Your task to perform on an android device: Play the last video I watched on Youtube Image 0: 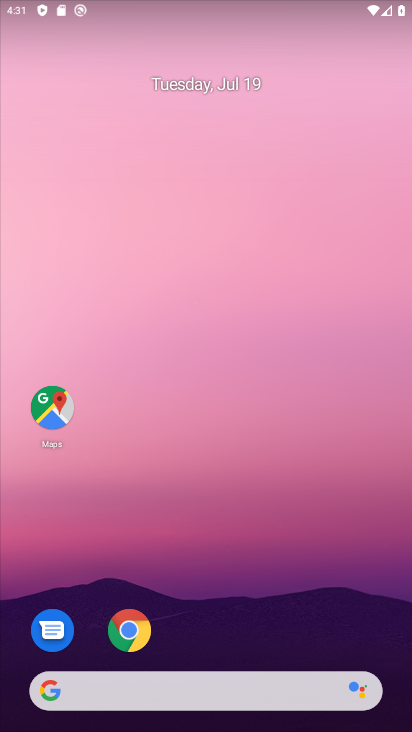
Step 0: drag from (287, 693) to (202, 309)
Your task to perform on an android device: Play the last video I watched on Youtube Image 1: 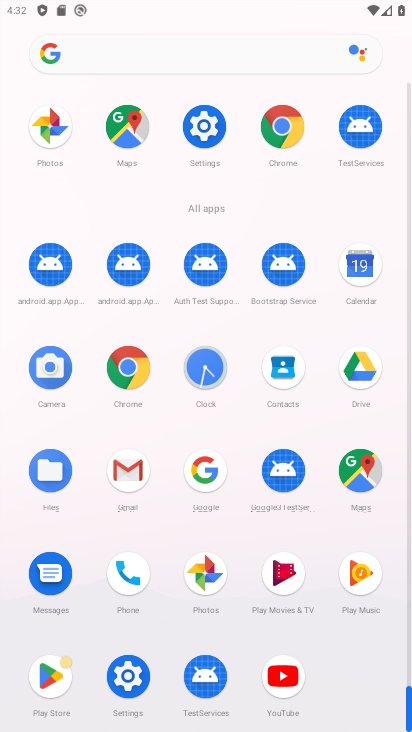
Step 1: click (278, 688)
Your task to perform on an android device: Play the last video I watched on Youtube Image 2: 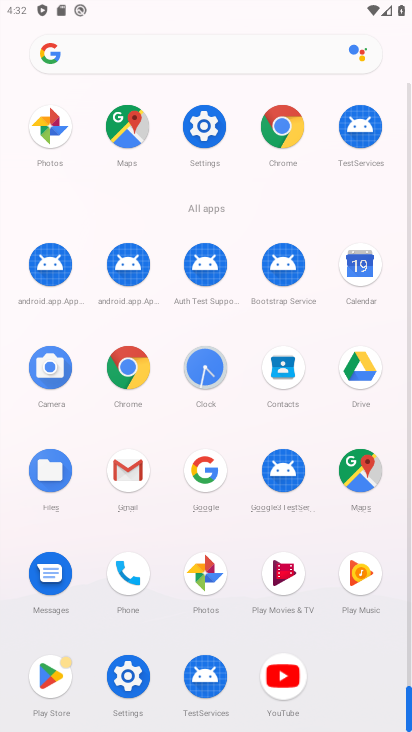
Step 2: click (281, 688)
Your task to perform on an android device: Play the last video I watched on Youtube Image 3: 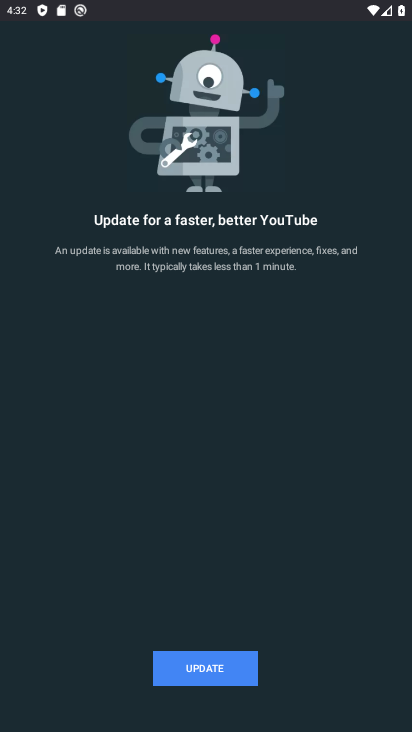
Step 3: click (220, 670)
Your task to perform on an android device: Play the last video I watched on Youtube Image 4: 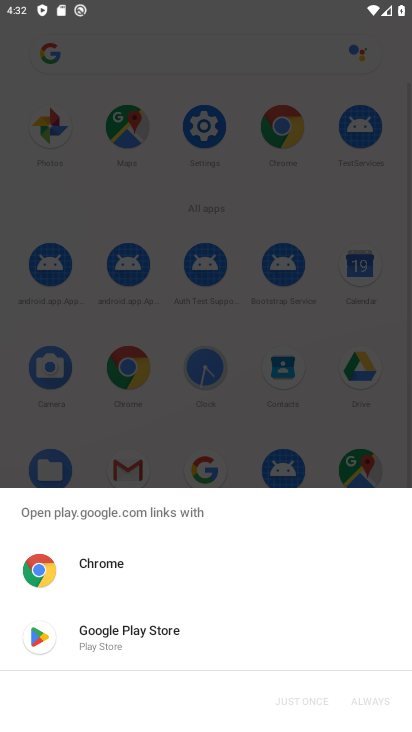
Step 4: click (76, 555)
Your task to perform on an android device: Play the last video I watched on Youtube Image 5: 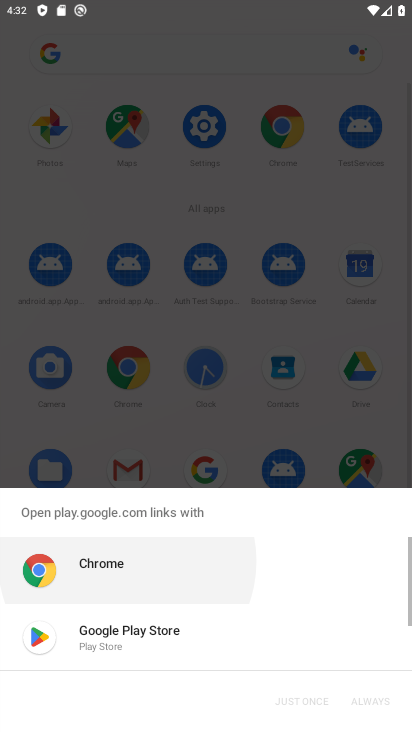
Step 5: click (76, 555)
Your task to perform on an android device: Play the last video I watched on Youtube Image 6: 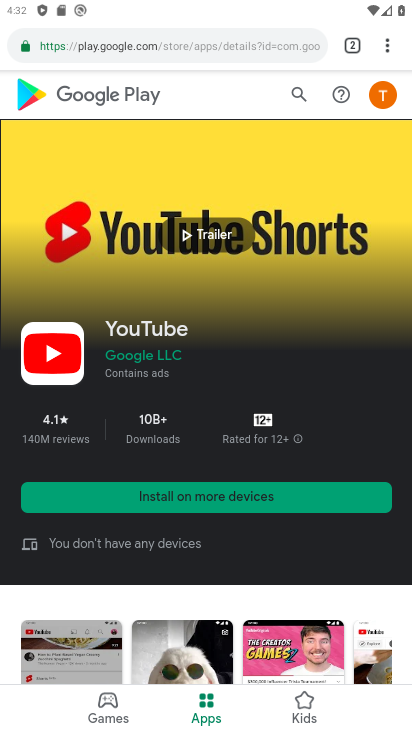
Step 6: drag from (199, 539) to (172, 286)
Your task to perform on an android device: Play the last video I watched on Youtube Image 7: 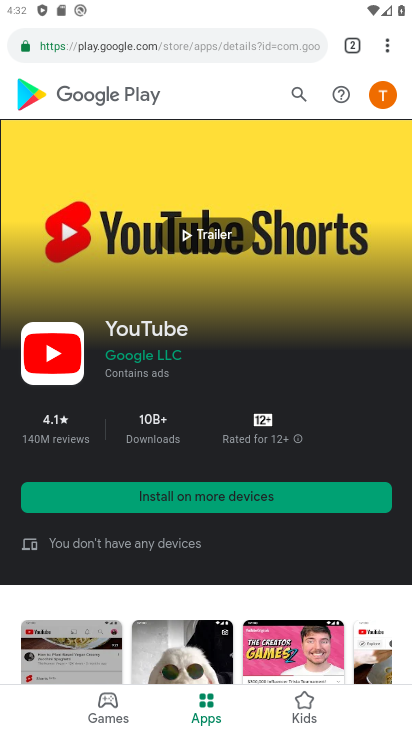
Step 7: click (225, 383)
Your task to perform on an android device: Play the last video I watched on Youtube Image 8: 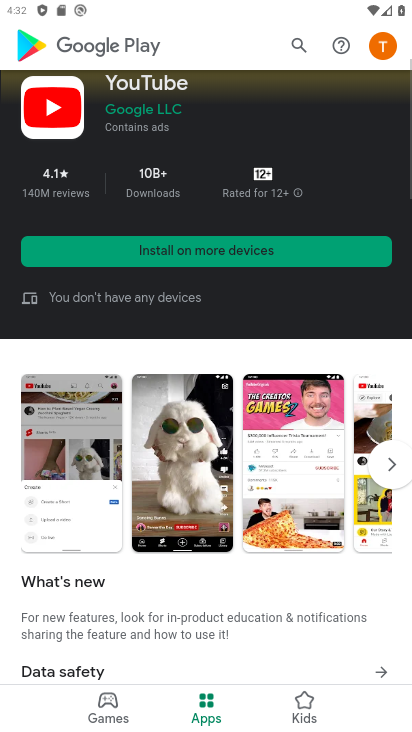
Step 8: drag from (218, 555) to (204, 398)
Your task to perform on an android device: Play the last video I watched on Youtube Image 9: 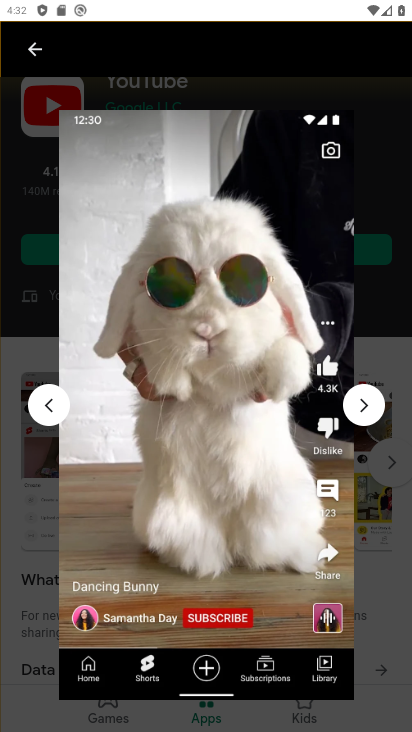
Step 9: drag from (187, 608) to (181, 349)
Your task to perform on an android device: Play the last video I watched on Youtube Image 10: 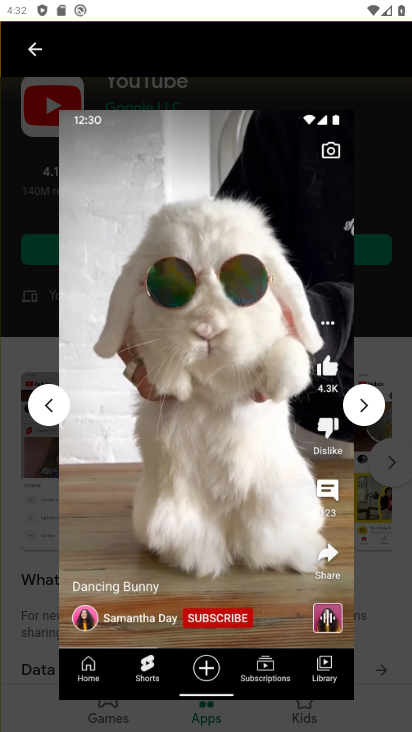
Step 10: click (202, 360)
Your task to perform on an android device: Play the last video I watched on Youtube Image 11: 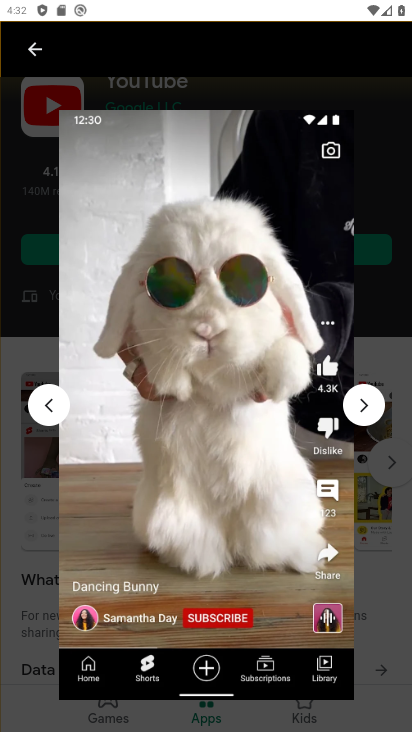
Step 11: click (202, 360)
Your task to perform on an android device: Play the last video I watched on Youtube Image 12: 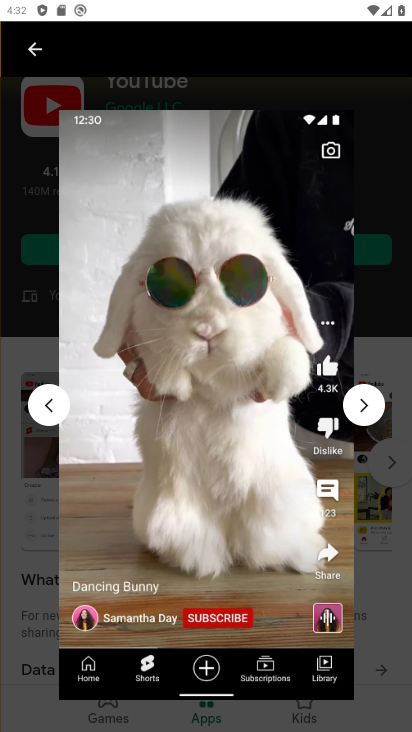
Step 12: click (202, 360)
Your task to perform on an android device: Play the last video I watched on Youtube Image 13: 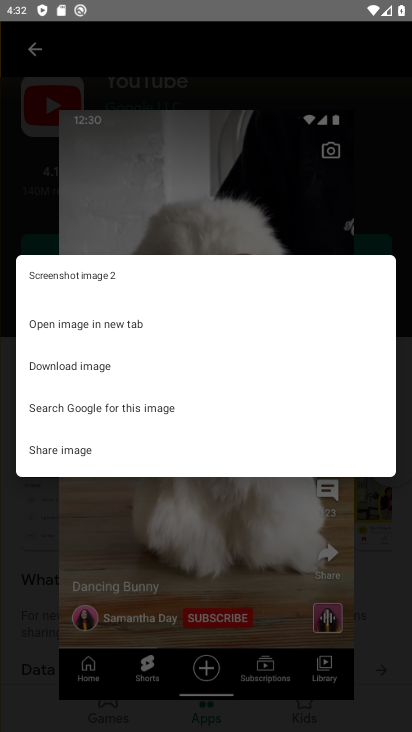
Step 13: task complete